Your task to perform on an android device: Search for seafood restaurants on Google Maps Image 0: 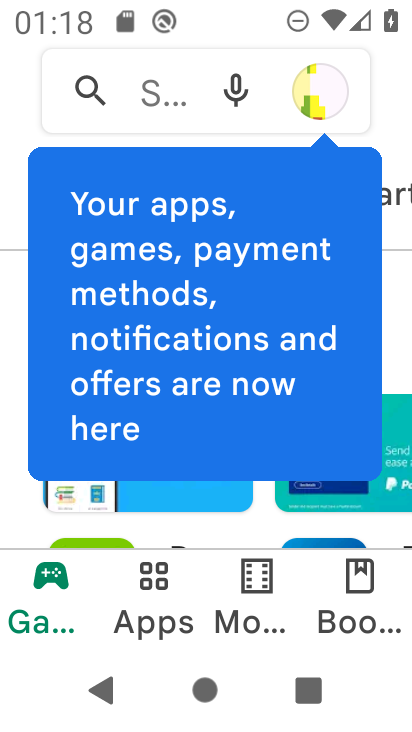
Step 0: press home button
Your task to perform on an android device: Search for seafood restaurants on Google Maps Image 1: 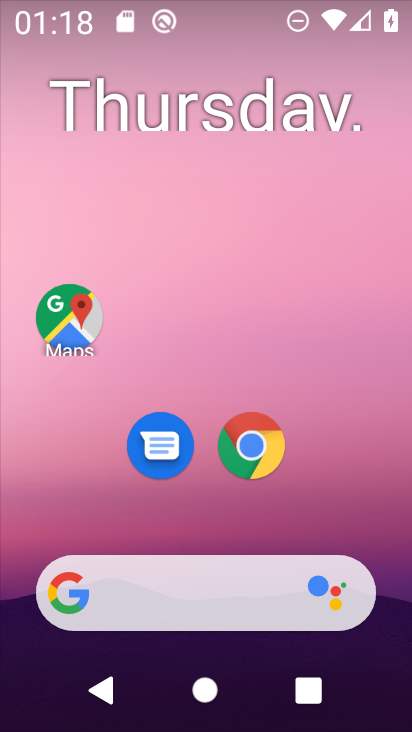
Step 1: click (84, 306)
Your task to perform on an android device: Search for seafood restaurants on Google Maps Image 2: 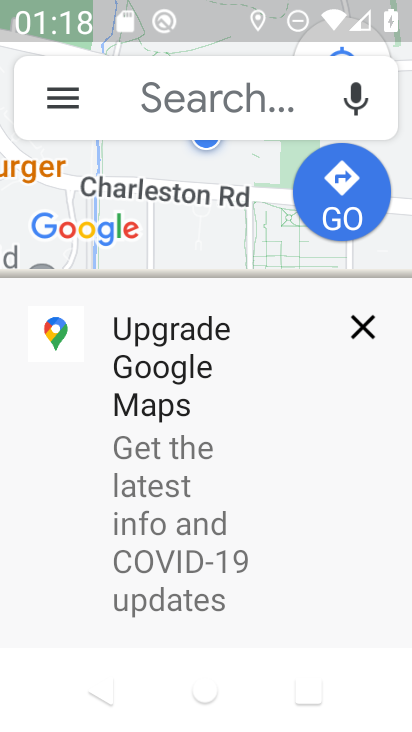
Step 2: click (177, 102)
Your task to perform on an android device: Search for seafood restaurants on Google Maps Image 3: 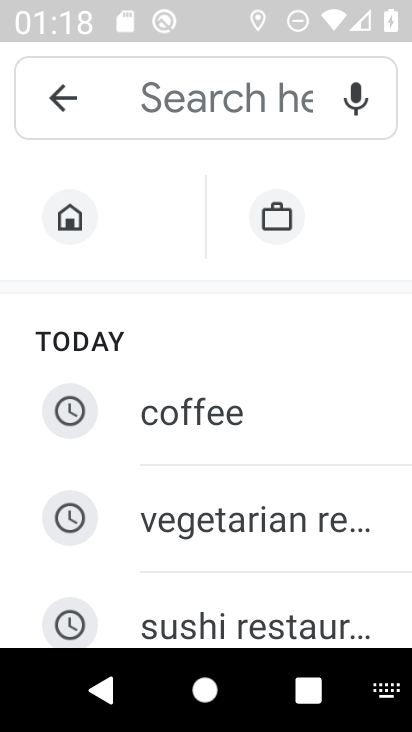
Step 3: type "seafood restaurant"
Your task to perform on an android device: Search for seafood restaurants on Google Maps Image 4: 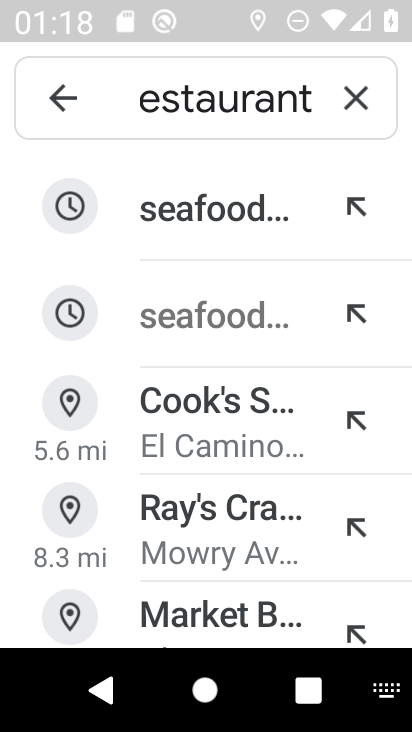
Step 4: click (156, 217)
Your task to perform on an android device: Search for seafood restaurants on Google Maps Image 5: 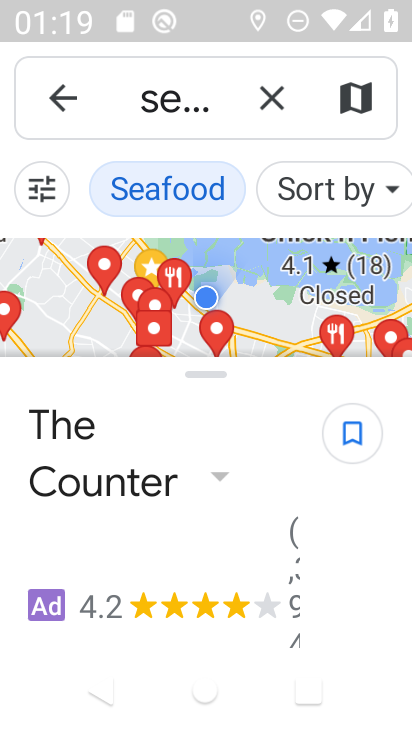
Step 5: task complete